Your task to perform on an android device: Do I have any events tomorrow? Image 0: 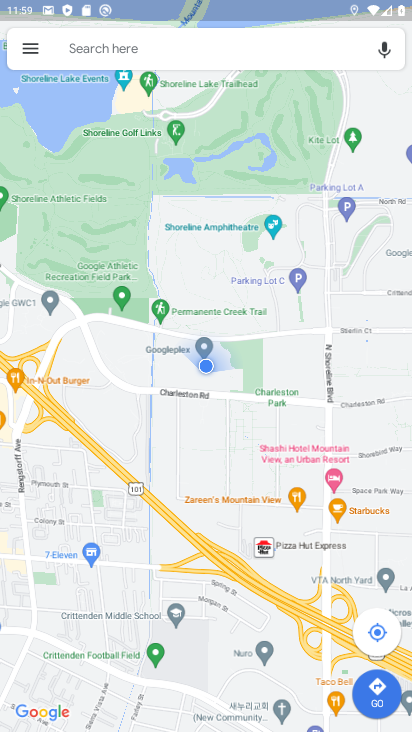
Step 0: press home button
Your task to perform on an android device: Do I have any events tomorrow? Image 1: 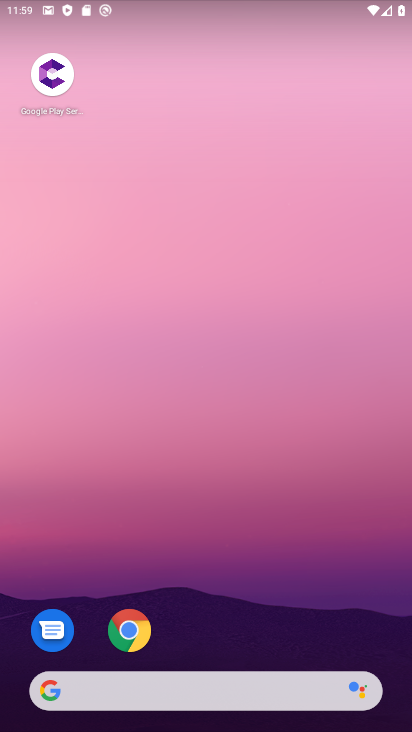
Step 1: drag from (208, 656) to (187, 1)
Your task to perform on an android device: Do I have any events tomorrow? Image 2: 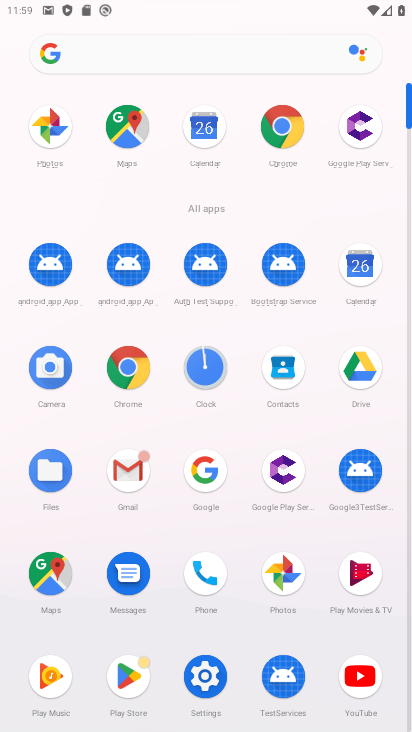
Step 2: click (360, 270)
Your task to perform on an android device: Do I have any events tomorrow? Image 3: 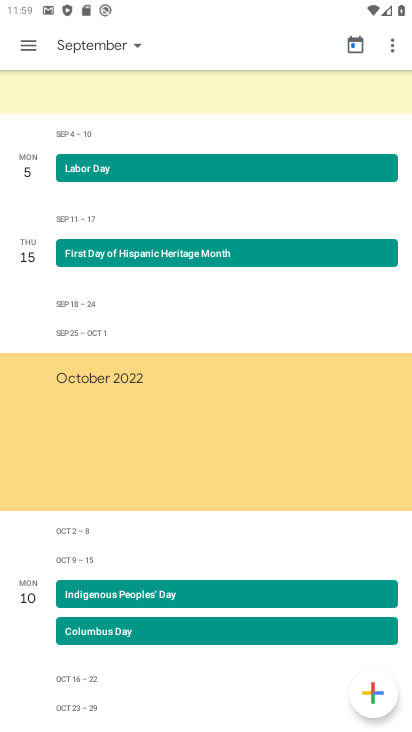
Step 3: click (14, 49)
Your task to perform on an android device: Do I have any events tomorrow? Image 4: 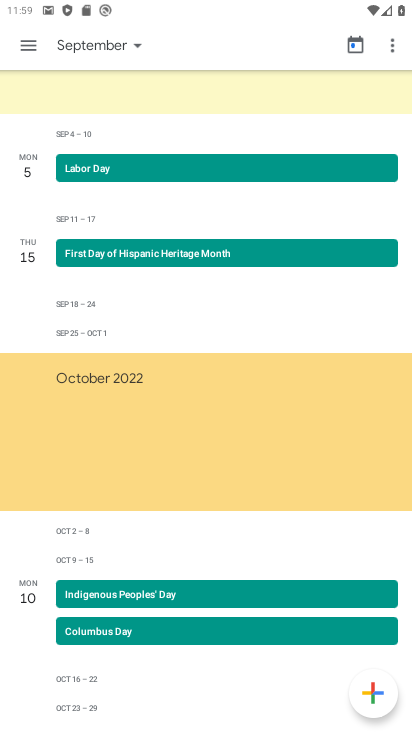
Step 4: click (34, 45)
Your task to perform on an android device: Do I have any events tomorrow? Image 5: 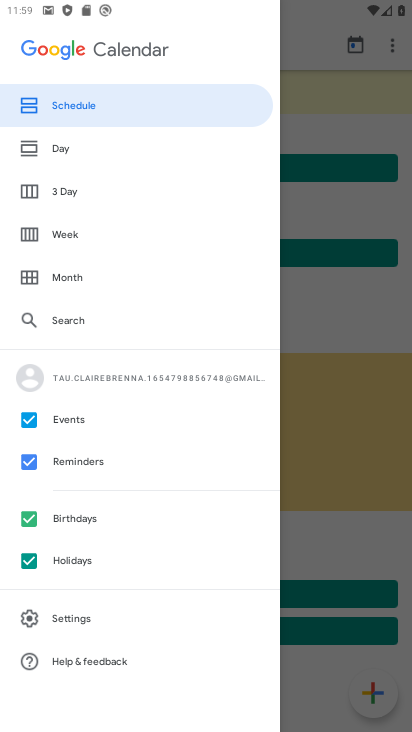
Step 5: click (51, 458)
Your task to perform on an android device: Do I have any events tomorrow? Image 6: 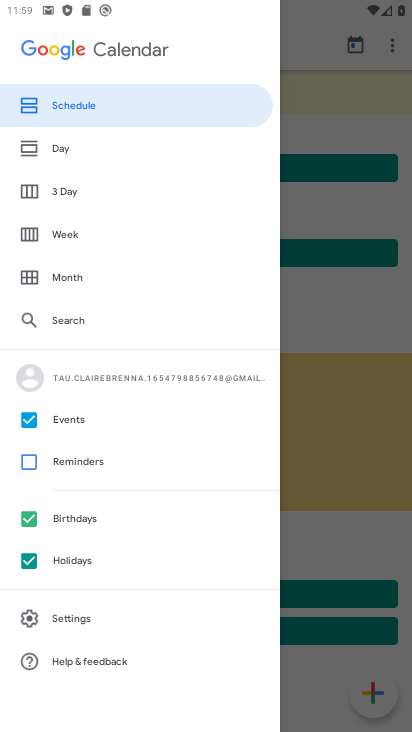
Step 6: click (63, 530)
Your task to perform on an android device: Do I have any events tomorrow? Image 7: 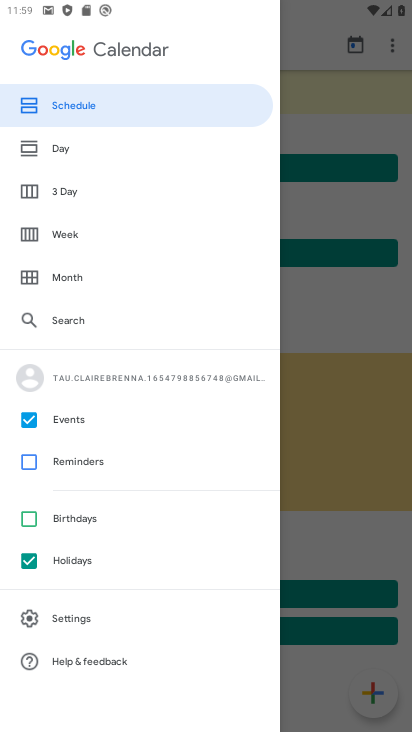
Step 7: click (63, 565)
Your task to perform on an android device: Do I have any events tomorrow? Image 8: 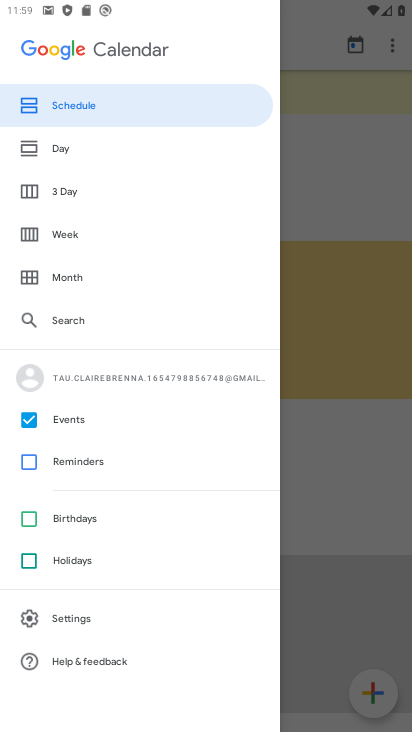
Step 8: click (65, 185)
Your task to perform on an android device: Do I have any events tomorrow? Image 9: 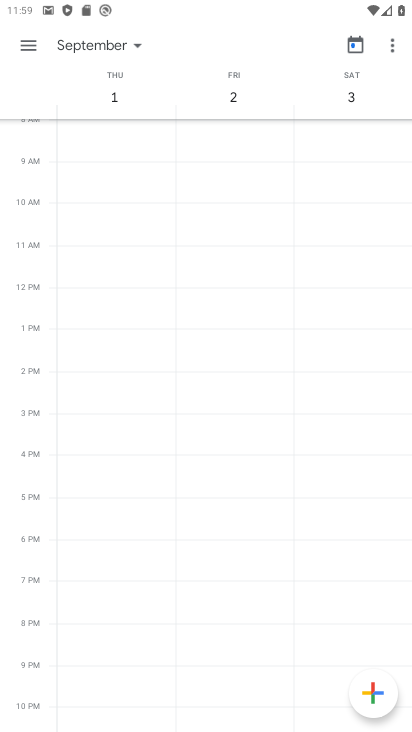
Step 9: click (98, 41)
Your task to perform on an android device: Do I have any events tomorrow? Image 10: 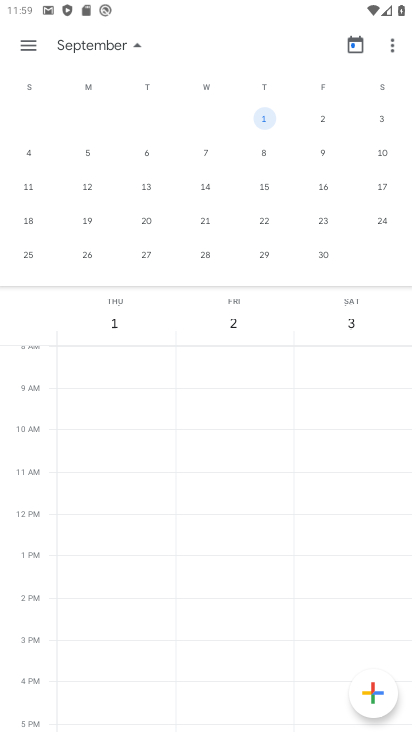
Step 10: drag from (90, 218) to (389, 245)
Your task to perform on an android device: Do I have any events tomorrow? Image 11: 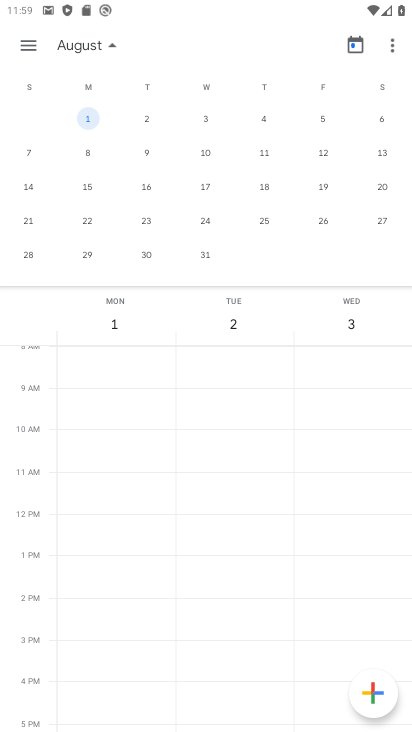
Step 11: drag from (69, 172) to (410, 250)
Your task to perform on an android device: Do I have any events tomorrow? Image 12: 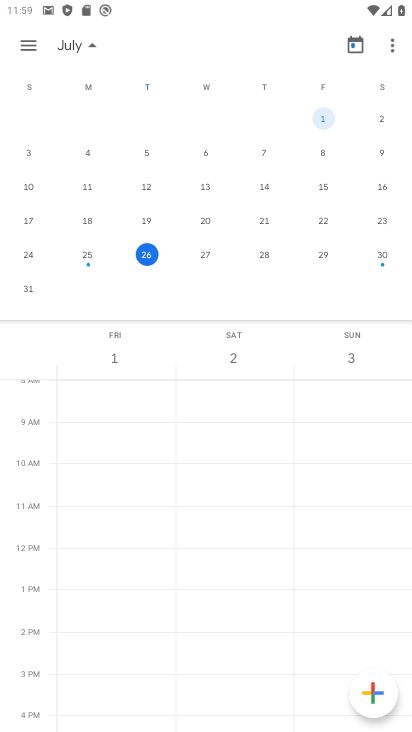
Step 12: click (210, 259)
Your task to perform on an android device: Do I have any events tomorrow? Image 13: 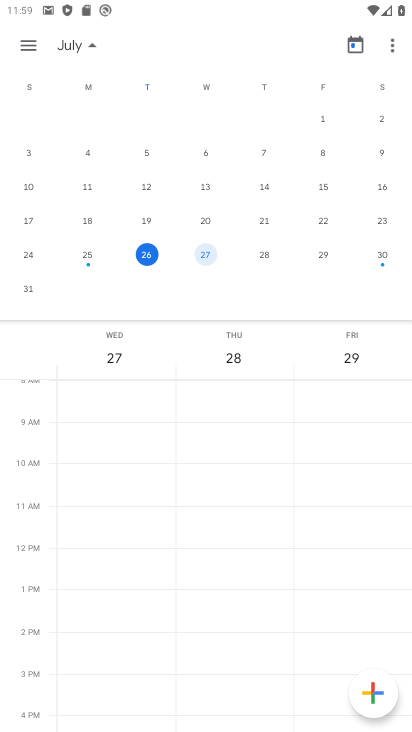
Step 13: task complete